Your task to perform on an android device: What's the weather going to be tomorrow? Image 0: 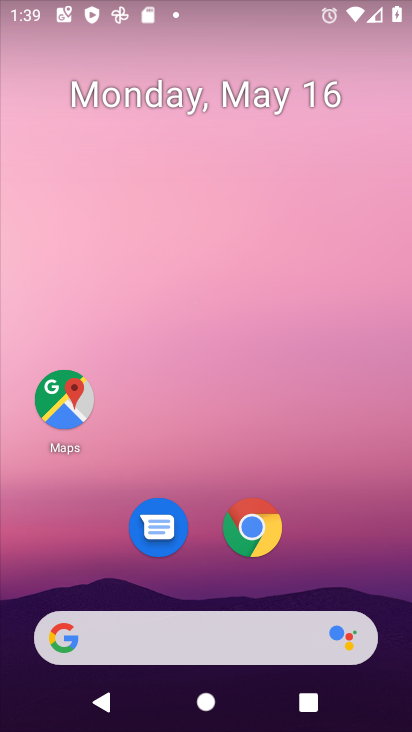
Step 0: click (379, 565)
Your task to perform on an android device: What's the weather going to be tomorrow? Image 1: 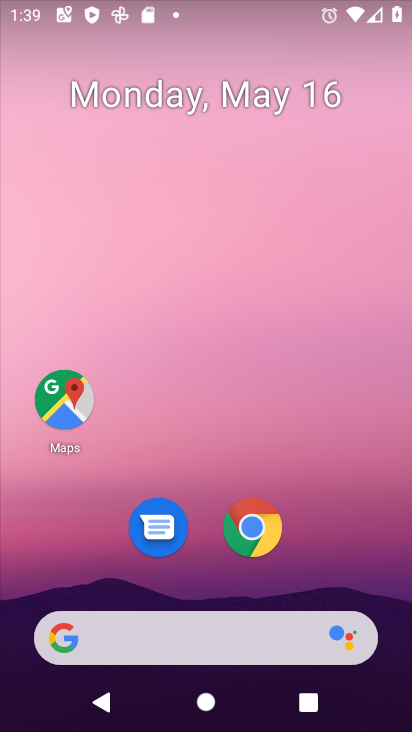
Step 1: drag from (379, 565) to (328, 236)
Your task to perform on an android device: What's the weather going to be tomorrow? Image 2: 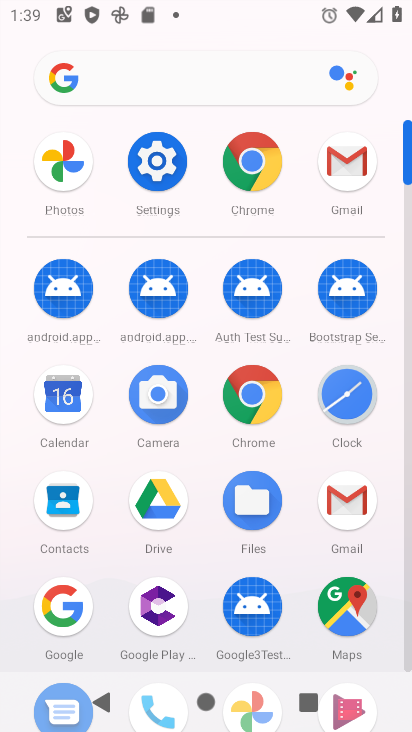
Step 2: click (237, 75)
Your task to perform on an android device: What's the weather going to be tomorrow? Image 3: 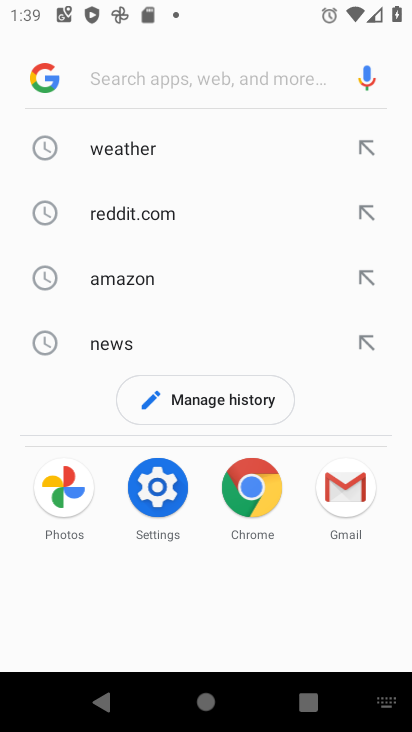
Step 3: click (199, 139)
Your task to perform on an android device: What's the weather going to be tomorrow? Image 4: 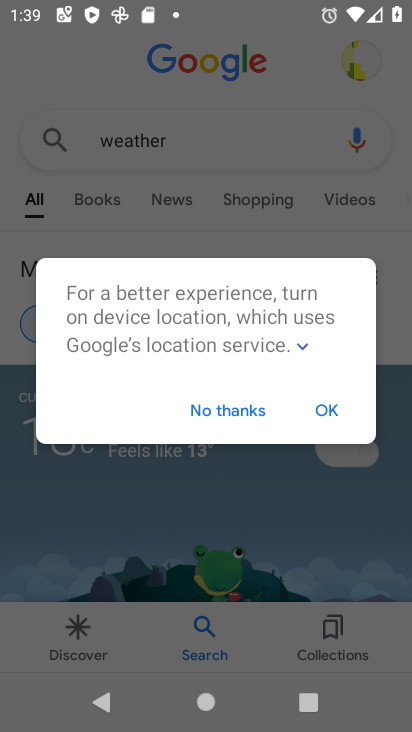
Step 4: click (191, 316)
Your task to perform on an android device: What's the weather going to be tomorrow? Image 5: 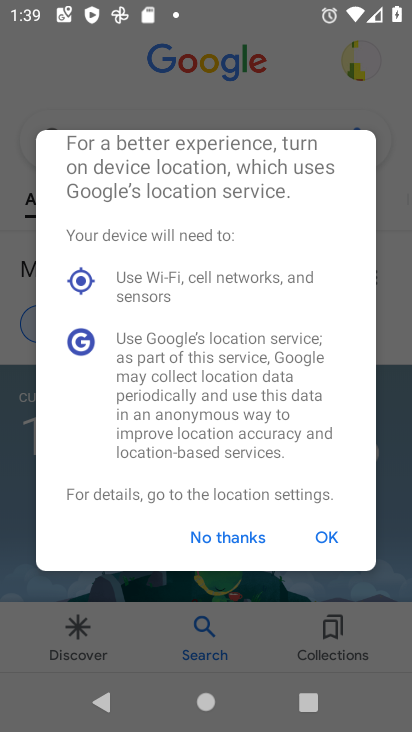
Step 5: click (320, 551)
Your task to perform on an android device: What's the weather going to be tomorrow? Image 6: 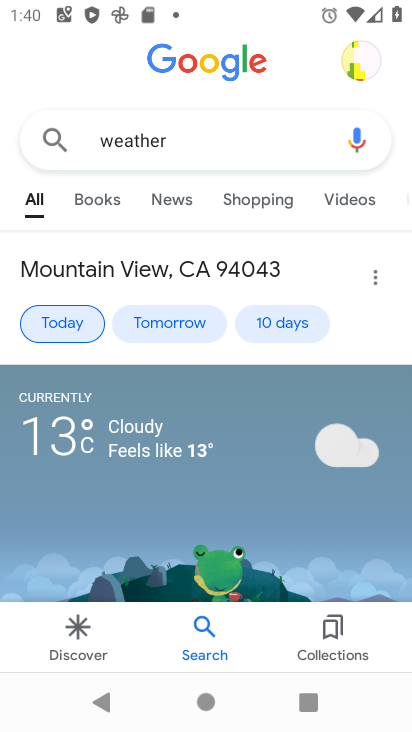
Step 6: task complete